Your task to perform on an android device: turn off data saver in the chrome app Image 0: 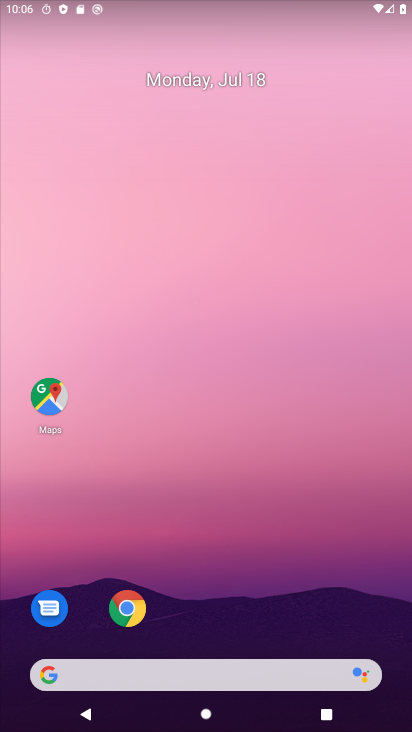
Step 0: drag from (253, 605) to (188, 164)
Your task to perform on an android device: turn off data saver in the chrome app Image 1: 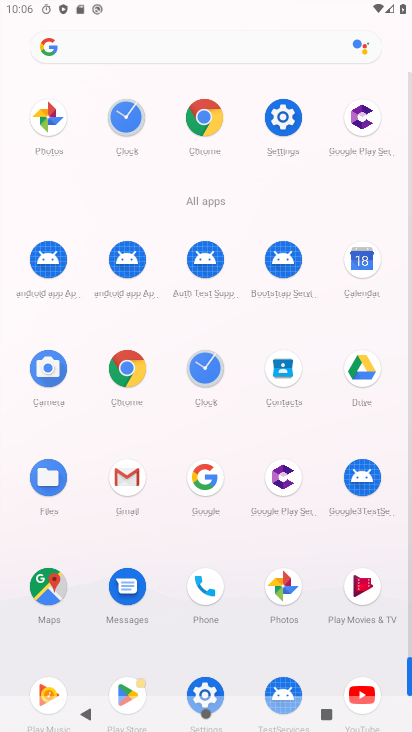
Step 1: click (198, 117)
Your task to perform on an android device: turn off data saver in the chrome app Image 2: 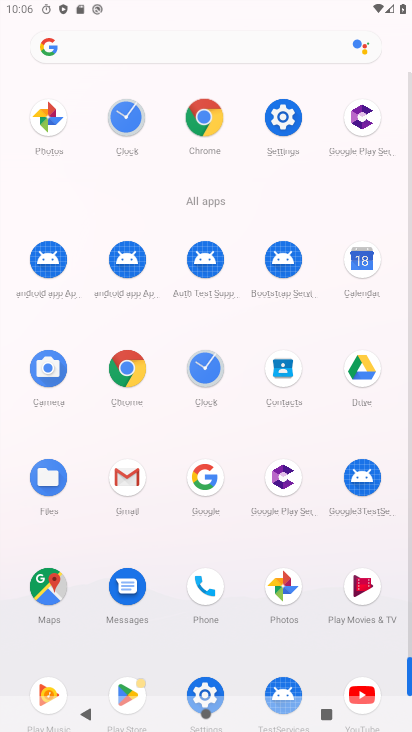
Step 2: click (201, 117)
Your task to perform on an android device: turn off data saver in the chrome app Image 3: 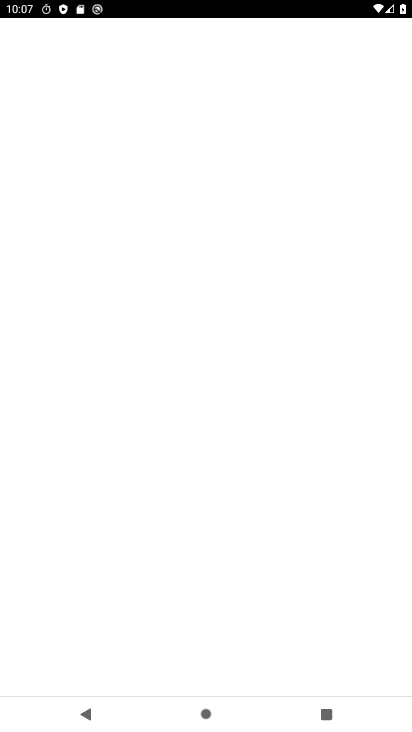
Step 3: click (202, 117)
Your task to perform on an android device: turn off data saver in the chrome app Image 4: 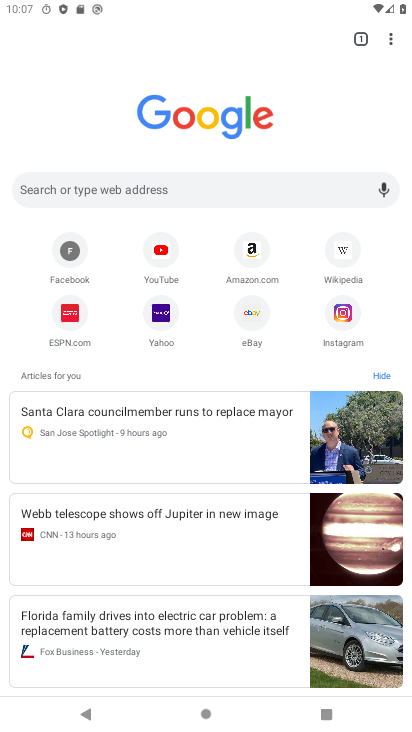
Step 4: drag from (387, 41) to (248, 334)
Your task to perform on an android device: turn off data saver in the chrome app Image 5: 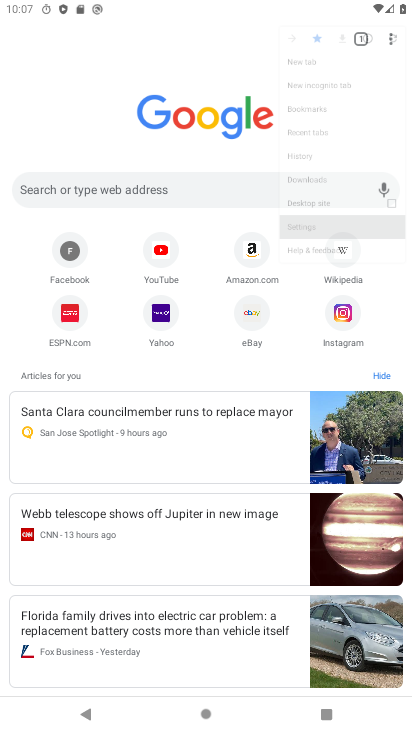
Step 5: click (252, 331)
Your task to perform on an android device: turn off data saver in the chrome app Image 6: 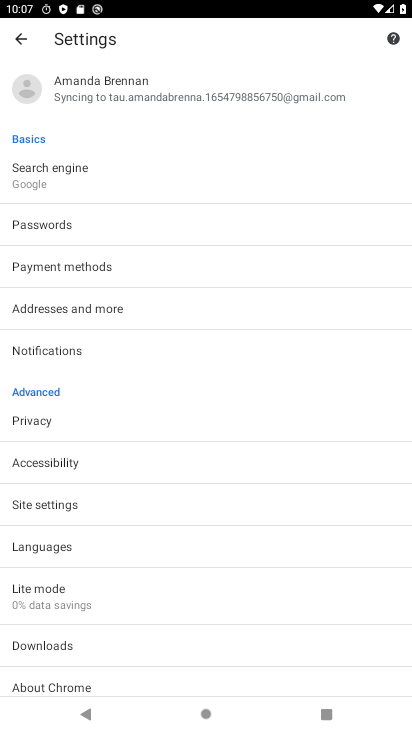
Step 6: click (62, 598)
Your task to perform on an android device: turn off data saver in the chrome app Image 7: 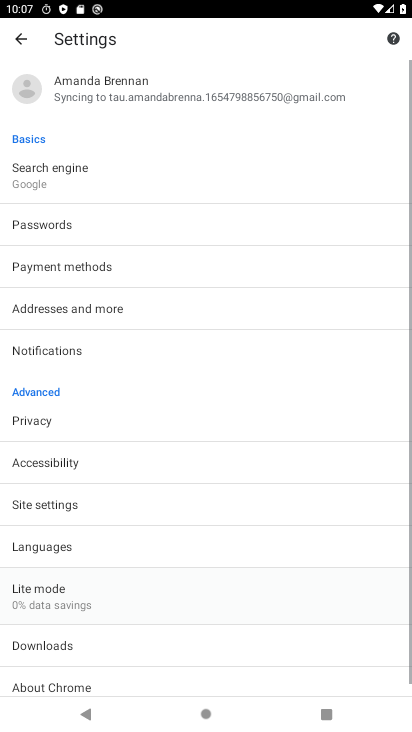
Step 7: click (61, 599)
Your task to perform on an android device: turn off data saver in the chrome app Image 8: 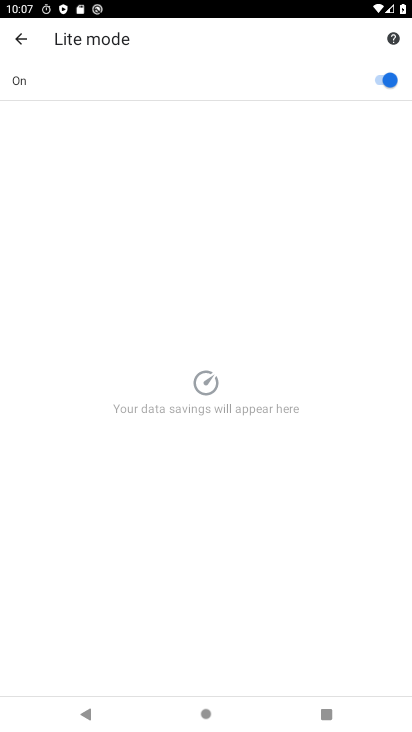
Step 8: click (389, 81)
Your task to perform on an android device: turn off data saver in the chrome app Image 9: 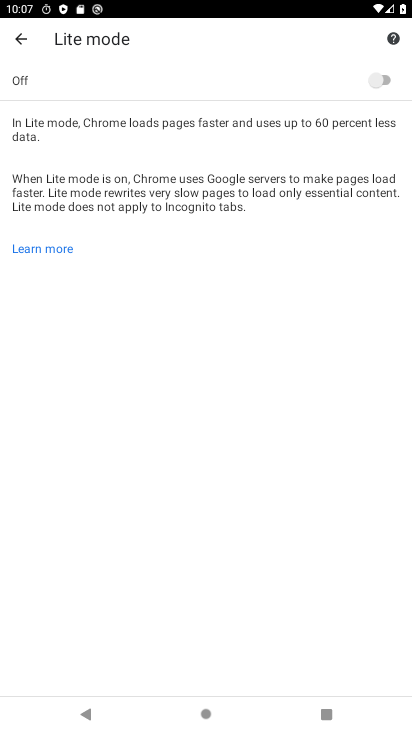
Step 9: task complete